Your task to perform on an android device: make emails show in primary in the gmail app Image 0: 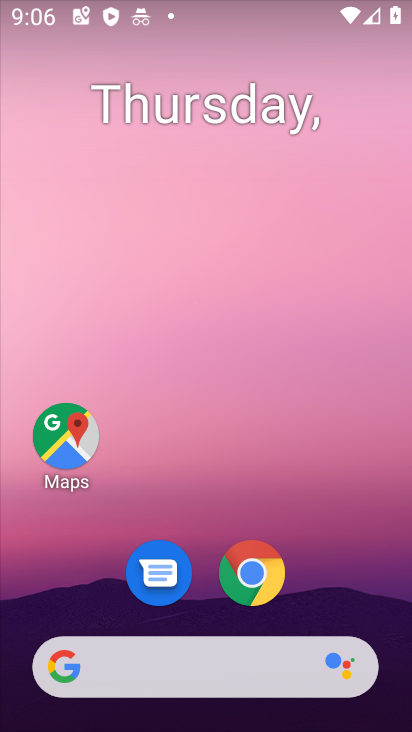
Step 0: drag from (276, 556) to (271, 170)
Your task to perform on an android device: make emails show in primary in the gmail app Image 1: 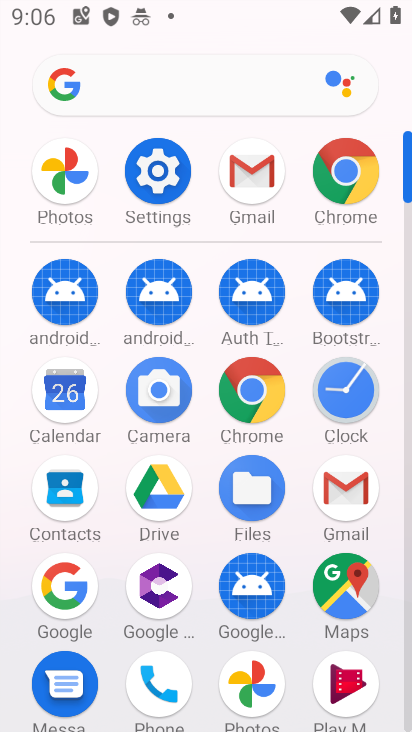
Step 1: click (344, 507)
Your task to perform on an android device: make emails show in primary in the gmail app Image 2: 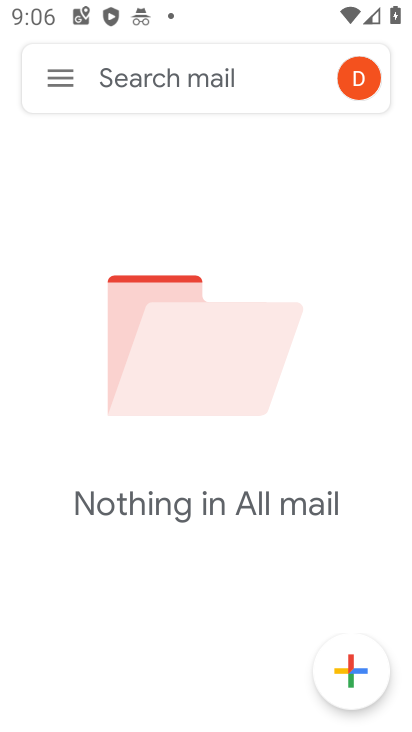
Step 2: click (82, 73)
Your task to perform on an android device: make emails show in primary in the gmail app Image 3: 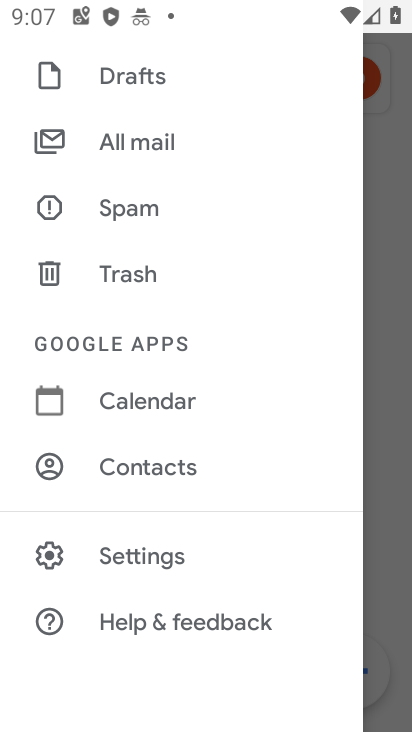
Step 3: click (106, 553)
Your task to perform on an android device: make emails show in primary in the gmail app Image 4: 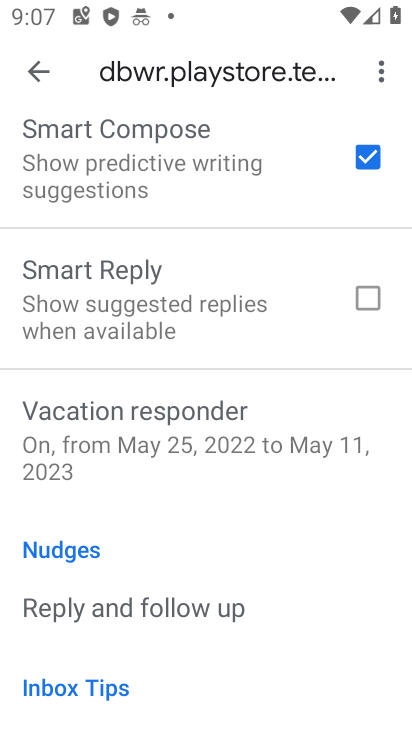
Step 4: drag from (227, 168) to (246, 634)
Your task to perform on an android device: make emails show in primary in the gmail app Image 5: 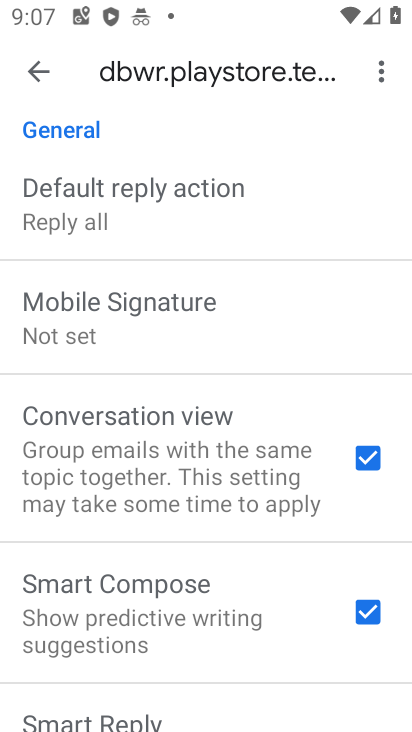
Step 5: drag from (249, 254) to (232, 605)
Your task to perform on an android device: make emails show in primary in the gmail app Image 6: 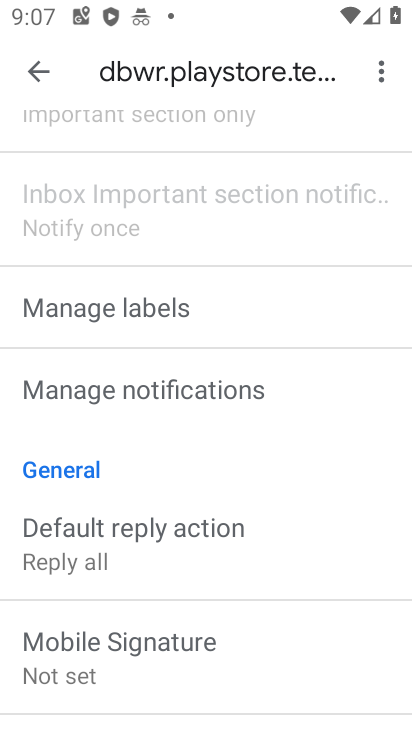
Step 6: drag from (242, 266) to (191, 624)
Your task to perform on an android device: make emails show in primary in the gmail app Image 7: 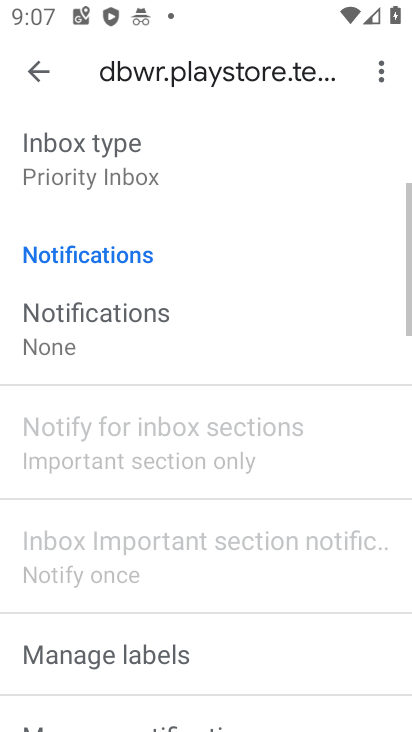
Step 7: drag from (204, 222) to (211, 539)
Your task to perform on an android device: make emails show in primary in the gmail app Image 8: 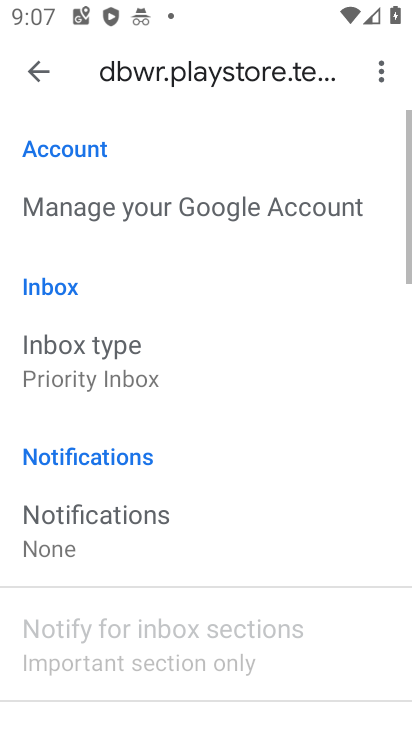
Step 8: click (90, 354)
Your task to perform on an android device: make emails show in primary in the gmail app Image 9: 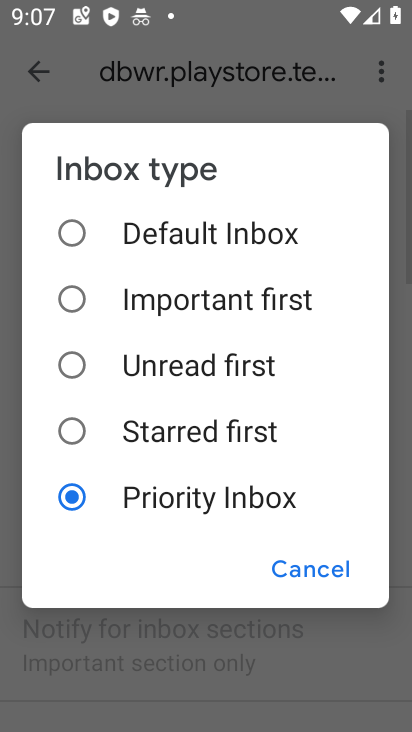
Step 9: click (47, 224)
Your task to perform on an android device: make emails show in primary in the gmail app Image 10: 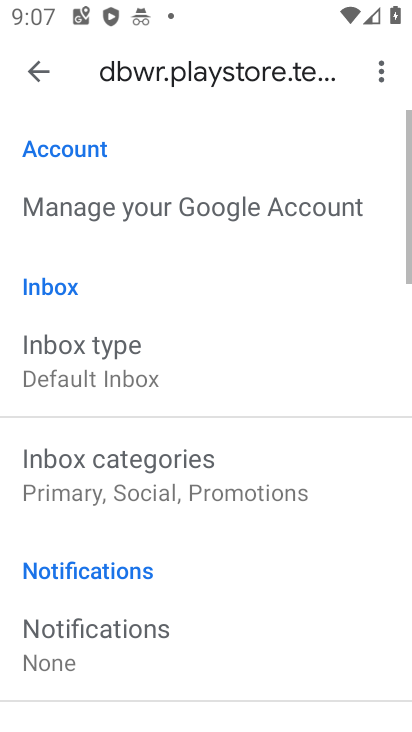
Step 10: drag from (155, 603) to (167, 414)
Your task to perform on an android device: make emails show in primary in the gmail app Image 11: 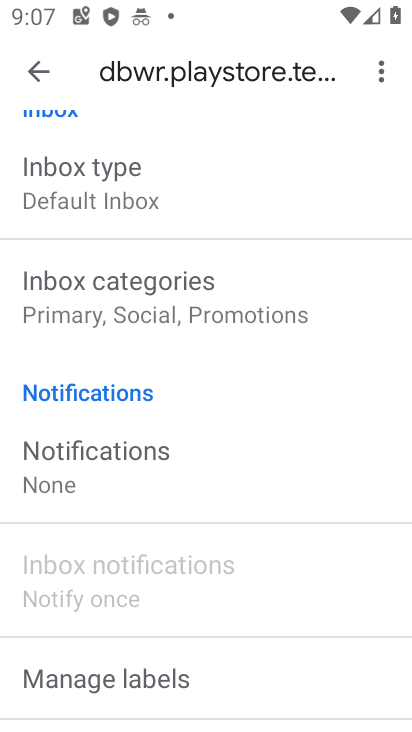
Step 11: click (144, 330)
Your task to perform on an android device: make emails show in primary in the gmail app Image 12: 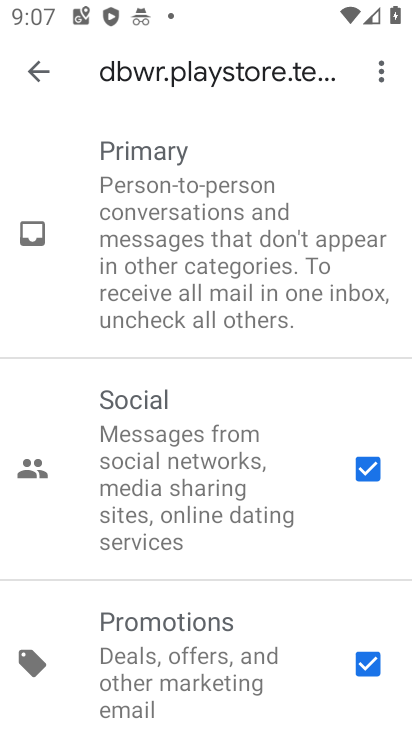
Step 12: click (28, 237)
Your task to perform on an android device: make emails show in primary in the gmail app Image 13: 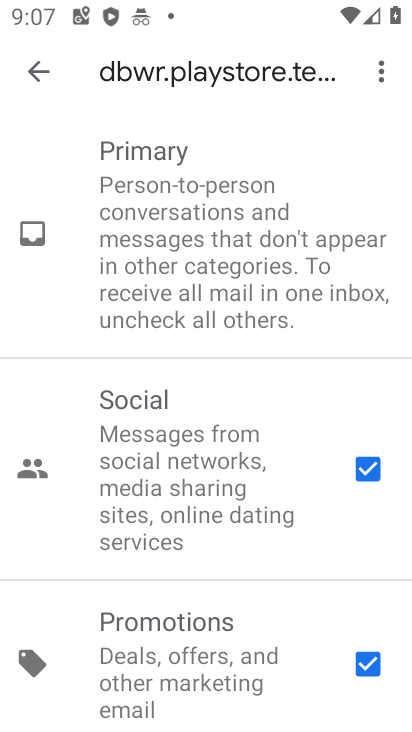
Step 13: task complete